Your task to perform on an android device: Search for sushi restaurants on Maps Image 0: 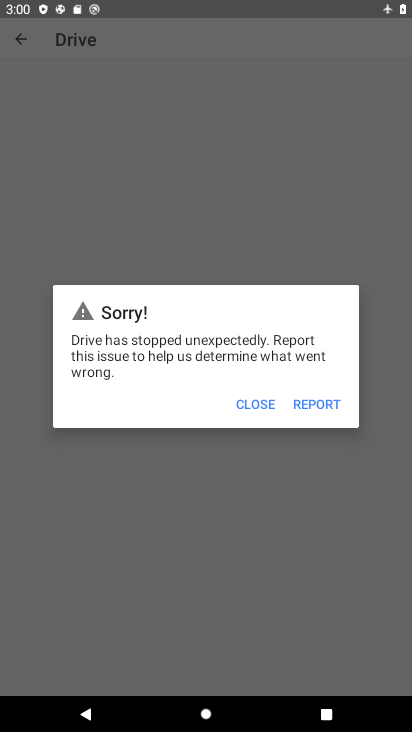
Step 0: press home button
Your task to perform on an android device: Search for sushi restaurants on Maps Image 1: 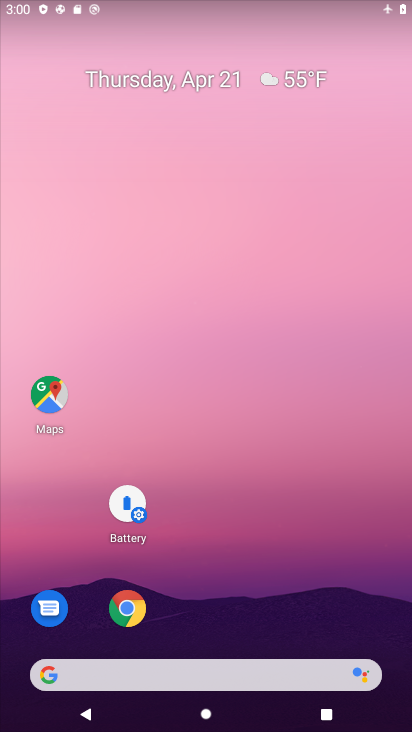
Step 1: drag from (223, 570) to (194, 155)
Your task to perform on an android device: Search for sushi restaurants on Maps Image 2: 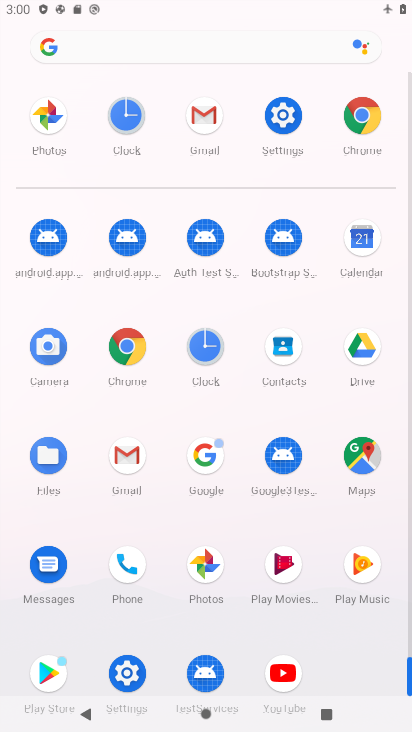
Step 2: click (362, 456)
Your task to perform on an android device: Search for sushi restaurants on Maps Image 3: 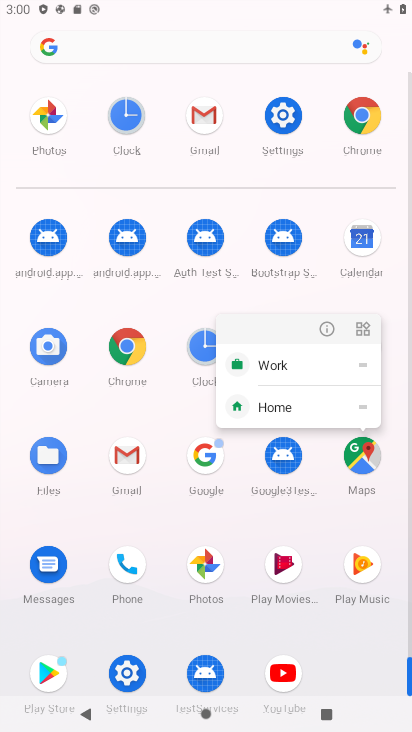
Step 3: click (363, 456)
Your task to perform on an android device: Search for sushi restaurants on Maps Image 4: 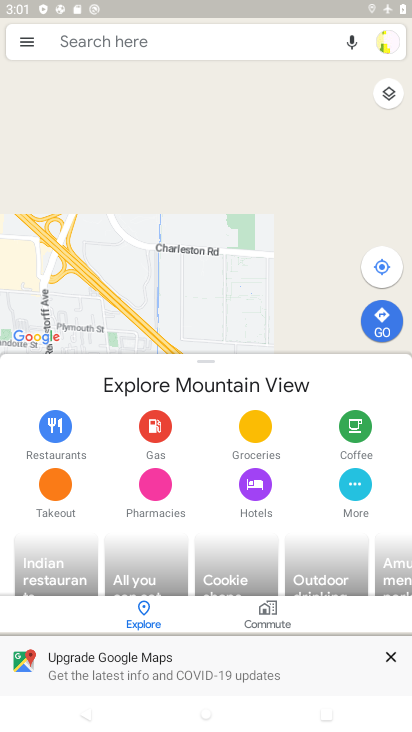
Step 4: click (236, 40)
Your task to perform on an android device: Search for sushi restaurants on Maps Image 5: 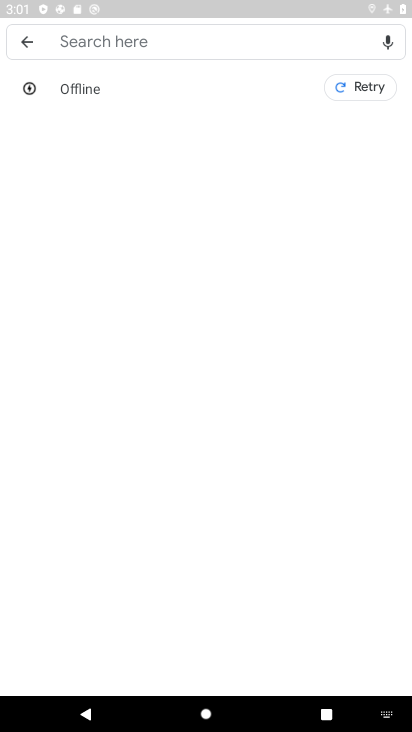
Step 5: type "sushi resturents"
Your task to perform on an android device: Search for sushi restaurants on Maps Image 6: 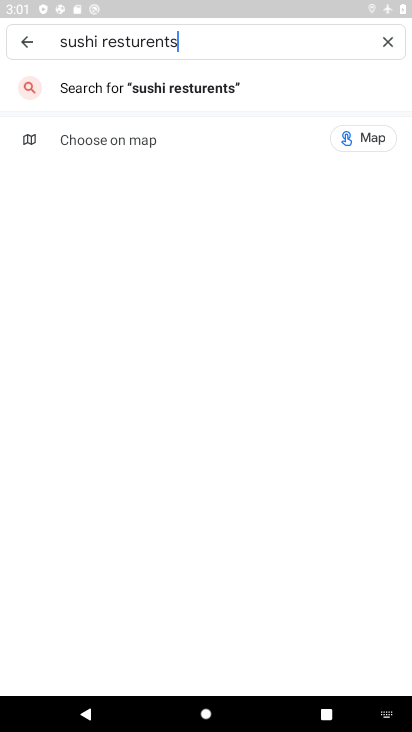
Step 6: click (181, 91)
Your task to perform on an android device: Search for sushi restaurants on Maps Image 7: 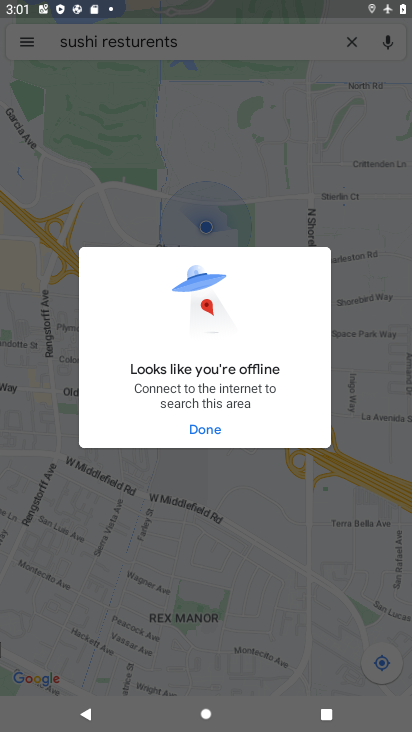
Step 7: task complete